Your task to perform on an android device: Do I have any events today? Image 0: 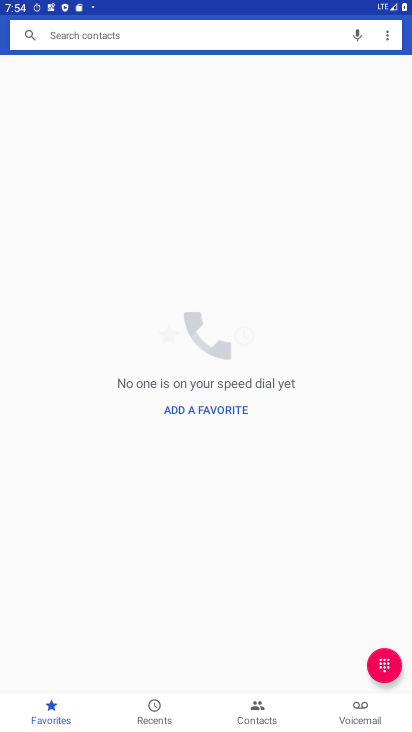
Step 0: press home button
Your task to perform on an android device: Do I have any events today? Image 1: 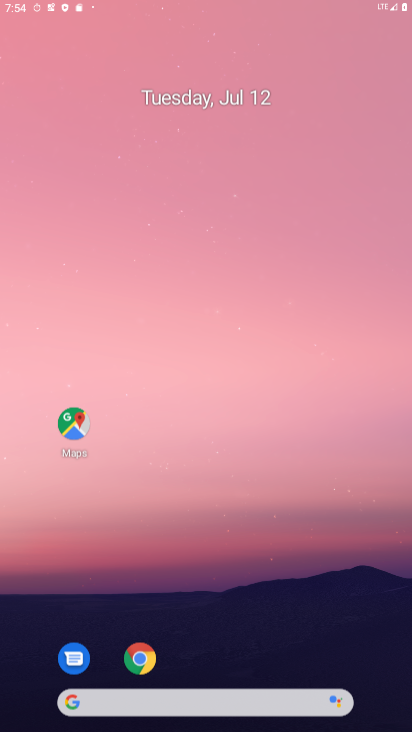
Step 1: drag from (392, 691) to (253, 49)
Your task to perform on an android device: Do I have any events today? Image 2: 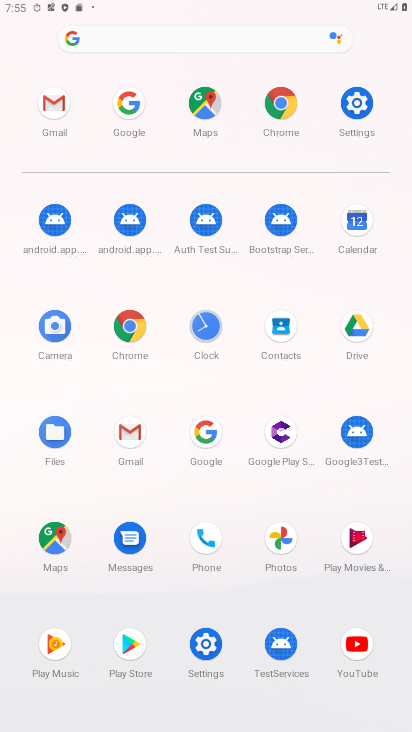
Step 2: click (348, 218)
Your task to perform on an android device: Do I have any events today? Image 3: 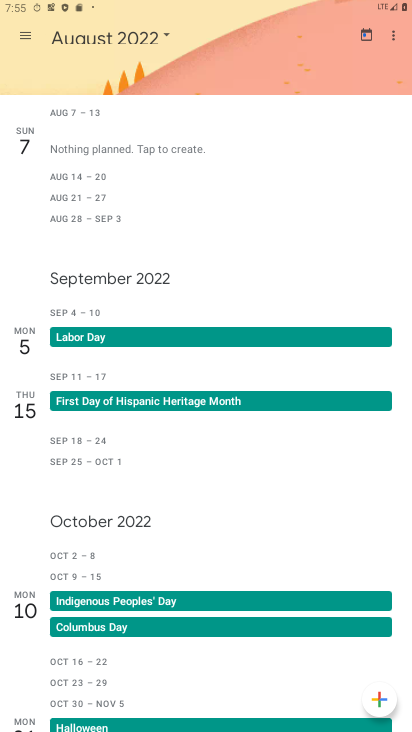
Step 3: task complete